Your task to perform on an android device: Open Google Image 0: 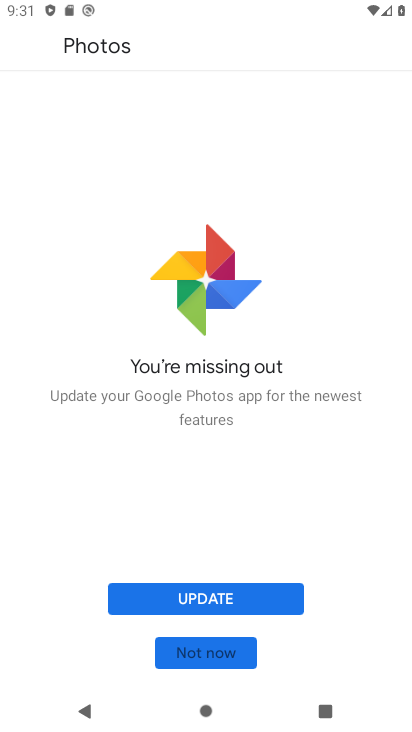
Step 0: press home button
Your task to perform on an android device: Open Google Image 1: 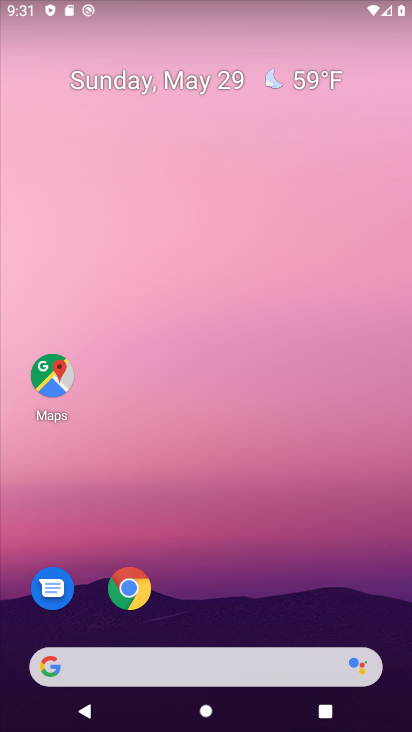
Step 1: drag from (250, 624) to (302, 6)
Your task to perform on an android device: Open Google Image 2: 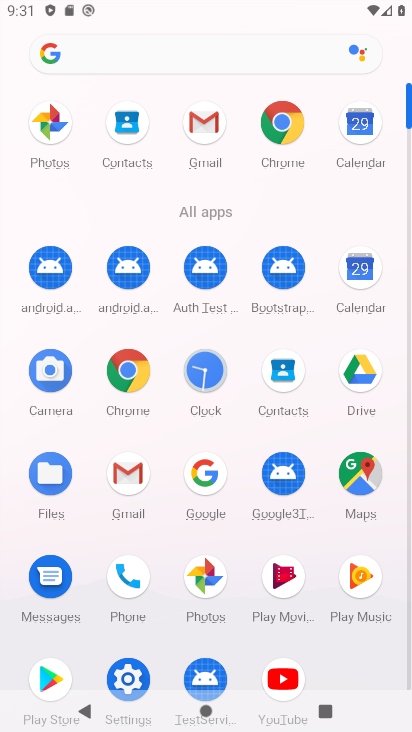
Step 2: click (201, 486)
Your task to perform on an android device: Open Google Image 3: 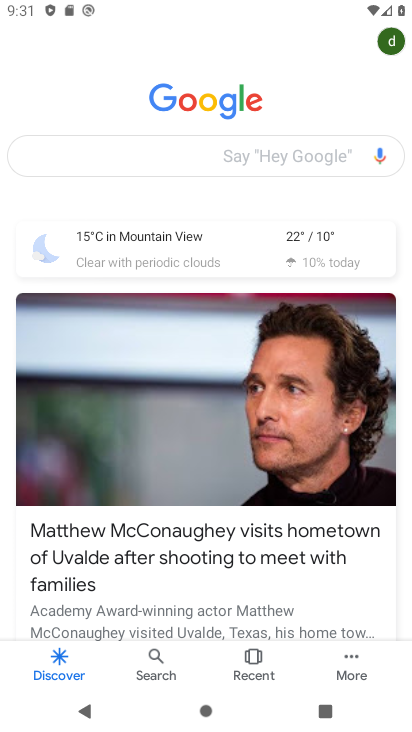
Step 3: task complete